Your task to perform on an android device: Open battery settings Image 0: 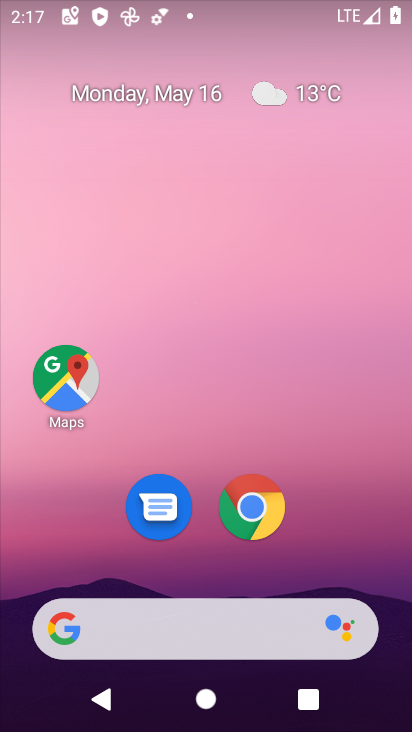
Step 0: drag from (319, 531) to (251, 27)
Your task to perform on an android device: Open battery settings Image 1: 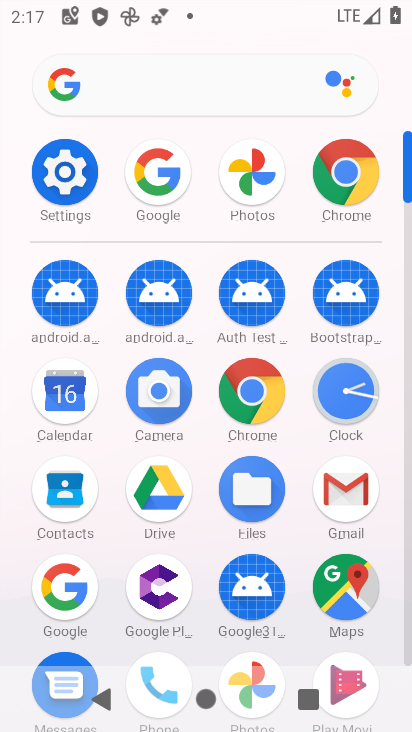
Step 1: click (64, 170)
Your task to perform on an android device: Open battery settings Image 2: 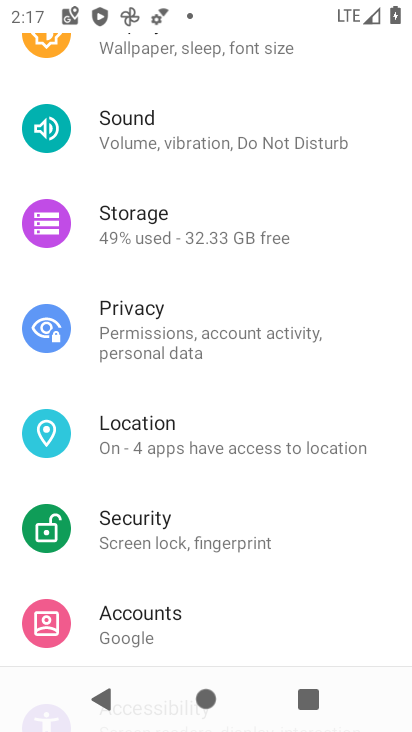
Step 2: drag from (184, 230) to (162, 525)
Your task to perform on an android device: Open battery settings Image 3: 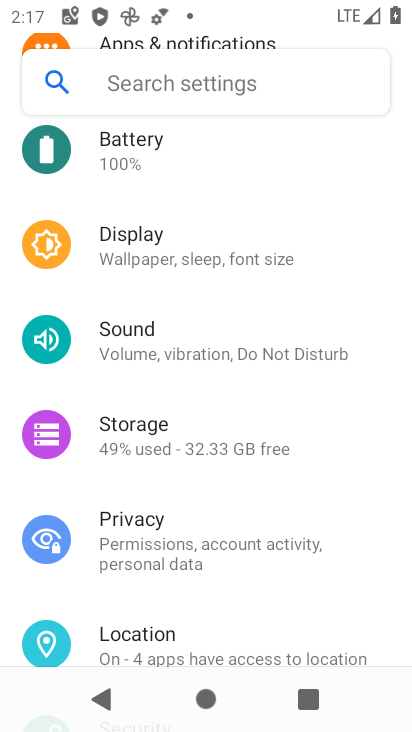
Step 3: drag from (181, 447) to (169, 49)
Your task to perform on an android device: Open battery settings Image 4: 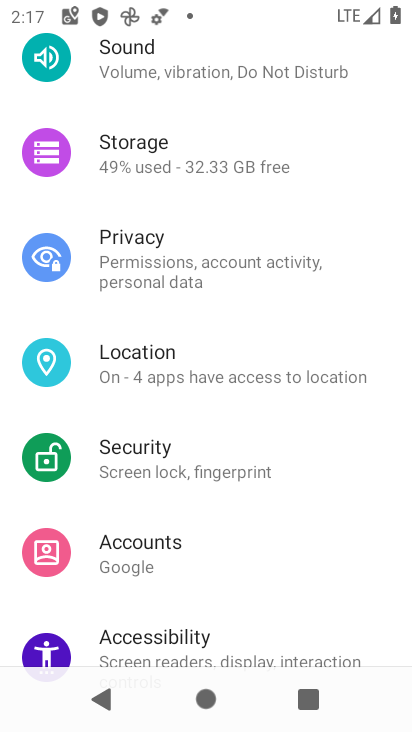
Step 4: drag from (153, 498) to (158, 201)
Your task to perform on an android device: Open battery settings Image 5: 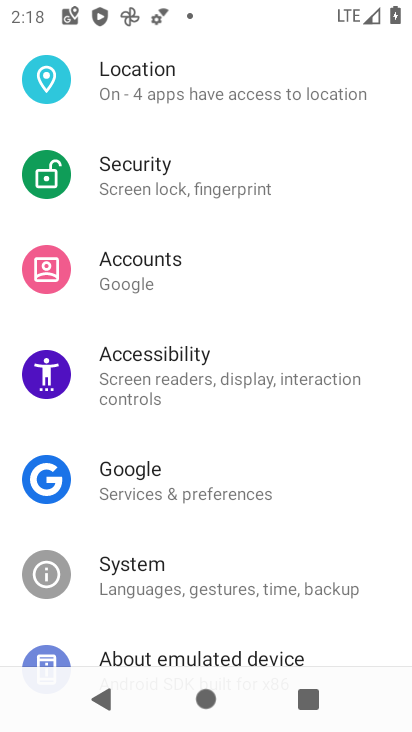
Step 5: drag from (219, 127) to (166, 666)
Your task to perform on an android device: Open battery settings Image 6: 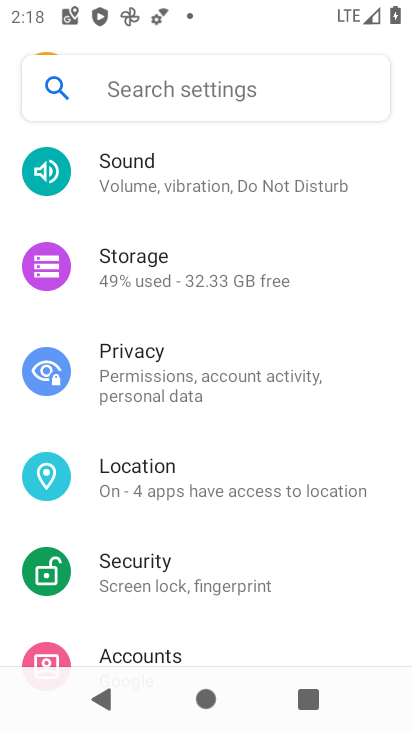
Step 6: drag from (208, 250) to (208, 656)
Your task to perform on an android device: Open battery settings Image 7: 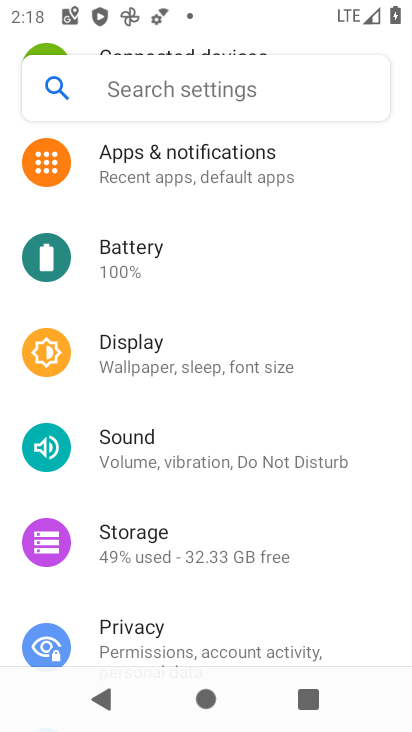
Step 7: click (211, 264)
Your task to perform on an android device: Open battery settings Image 8: 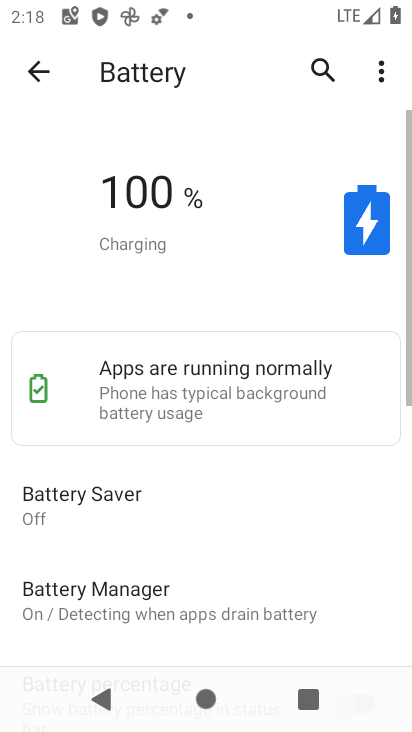
Step 8: task complete